Your task to perform on an android device: change alarm snooze length Image 0: 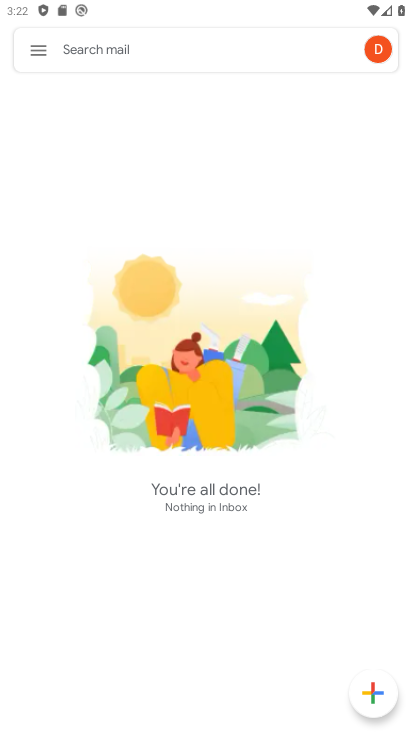
Step 0: press home button
Your task to perform on an android device: change alarm snooze length Image 1: 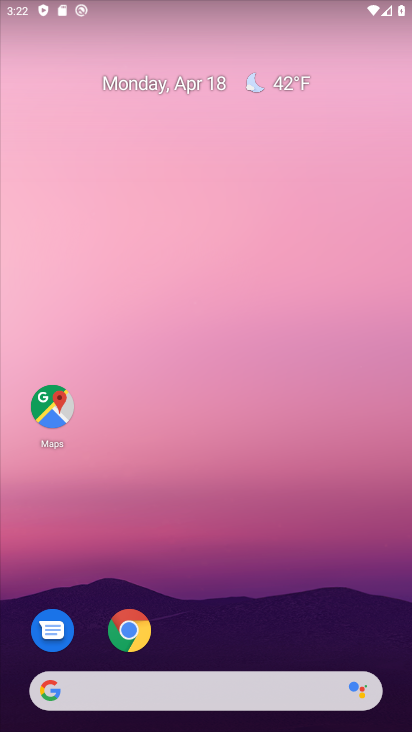
Step 1: drag from (290, 586) to (220, 81)
Your task to perform on an android device: change alarm snooze length Image 2: 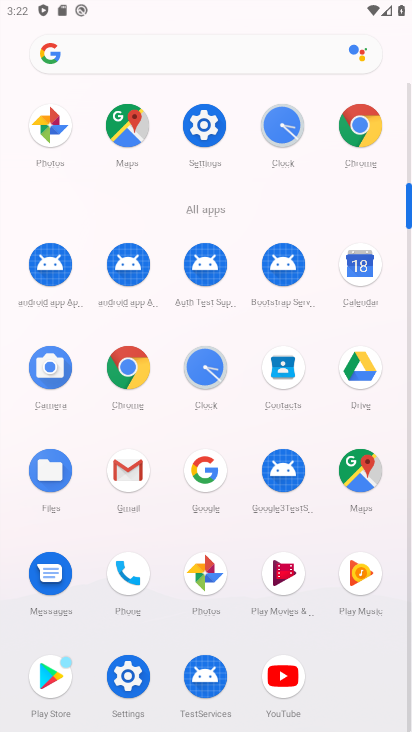
Step 2: click (216, 361)
Your task to perform on an android device: change alarm snooze length Image 3: 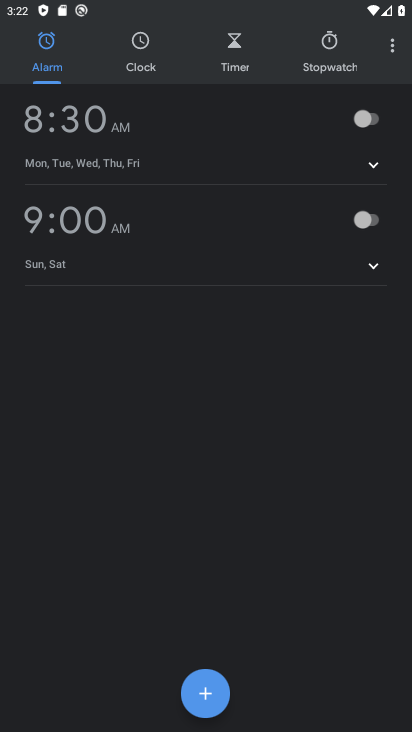
Step 3: click (387, 43)
Your task to perform on an android device: change alarm snooze length Image 4: 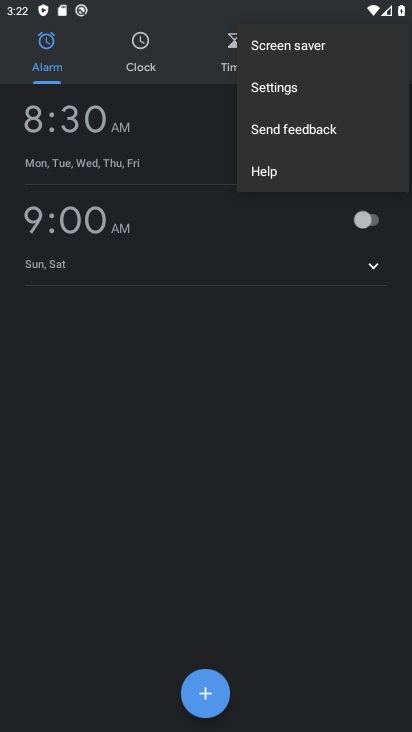
Step 4: click (296, 93)
Your task to perform on an android device: change alarm snooze length Image 5: 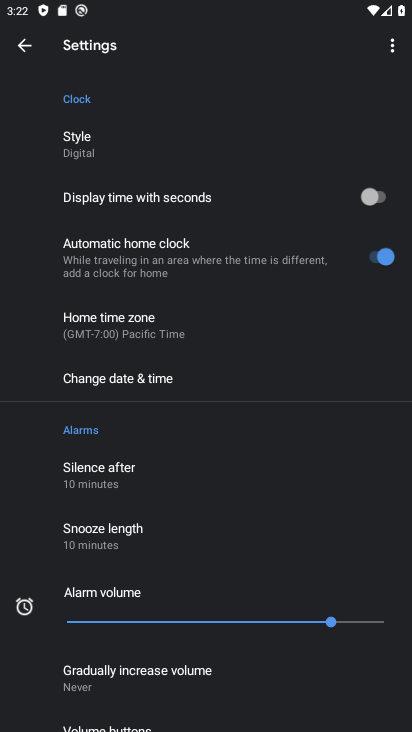
Step 5: drag from (275, 573) to (253, 359)
Your task to perform on an android device: change alarm snooze length Image 6: 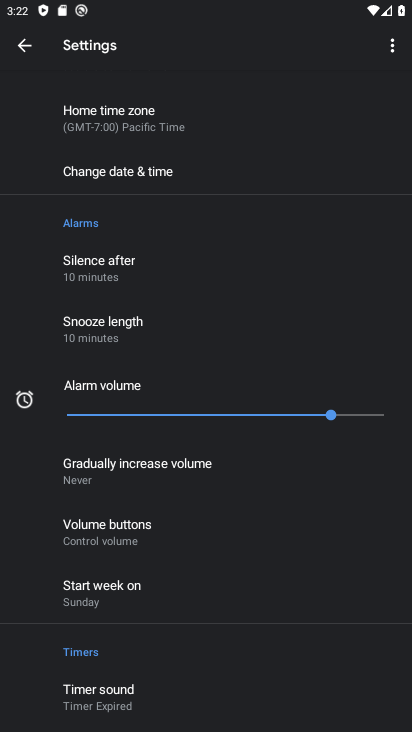
Step 6: click (141, 318)
Your task to perform on an android device: change alarm snooze length Image 7: 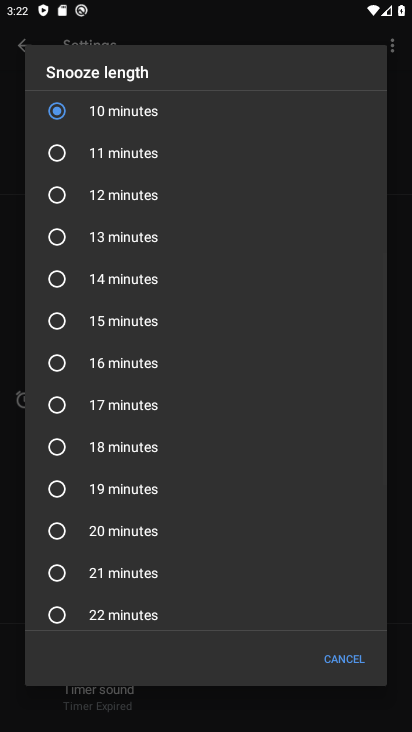
Step 7: drag from (151, 586) to (195, 157)
Your task to perform on an android device: change alarm snooze length Image 8: 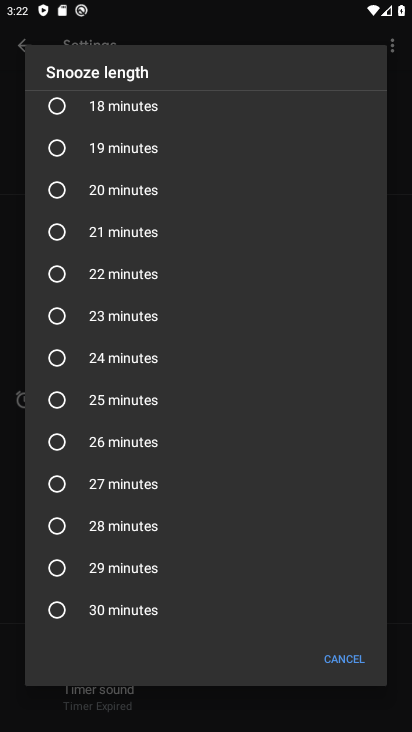
Step 8: click (119, 614)
Your task to perform on an android device: change alarm snooze length Image 9: 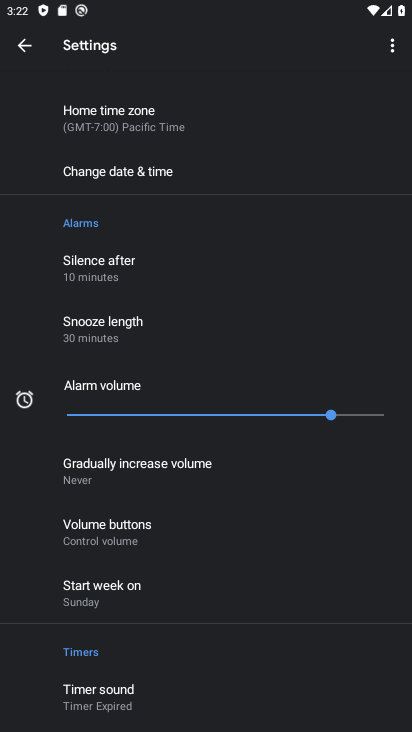
Step 9: task complete